Your task to perform on an android device: set the timer Image 0: 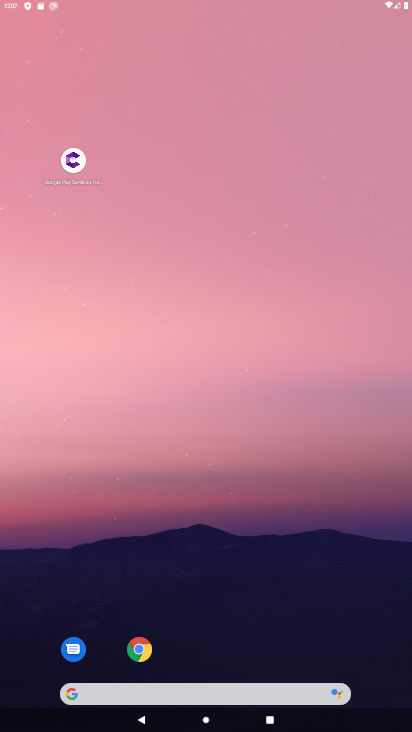
Step 0: drag from (186, 700) to (88, 125)
Your task to perform on an android device: set the timer Image 1: 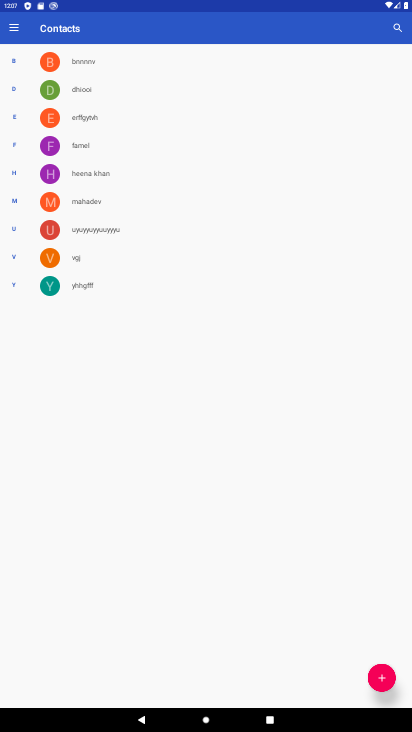
Step 1: press home button
Your task to perform on an android device: set the timer Image 2: 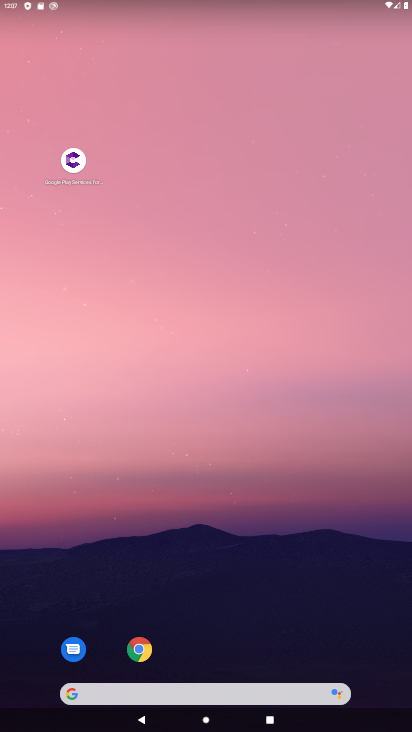
Step 2: drag from (135, 672) to (135, 278)
Your task to perform on an android device: set the timer Image 3: 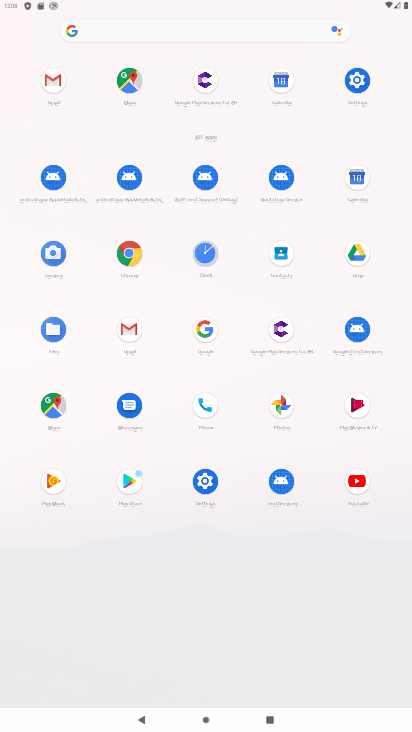
Step 3: click (204, 263)
Your task to perform on an android device: set the timer Image 4: 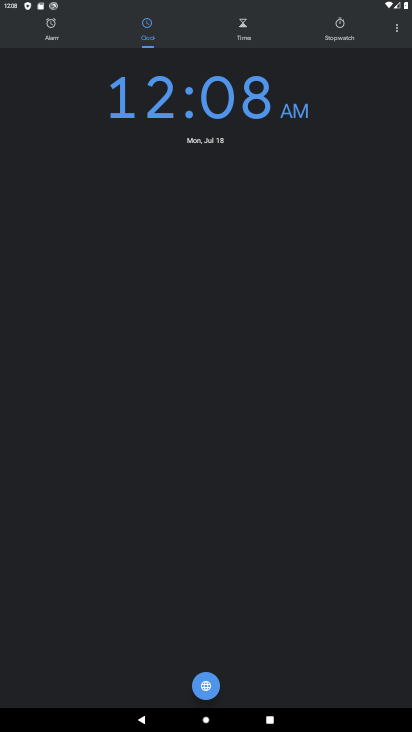
Step 4: click (344, 28)
Your task to perform on an android device: set the timer Image 5: 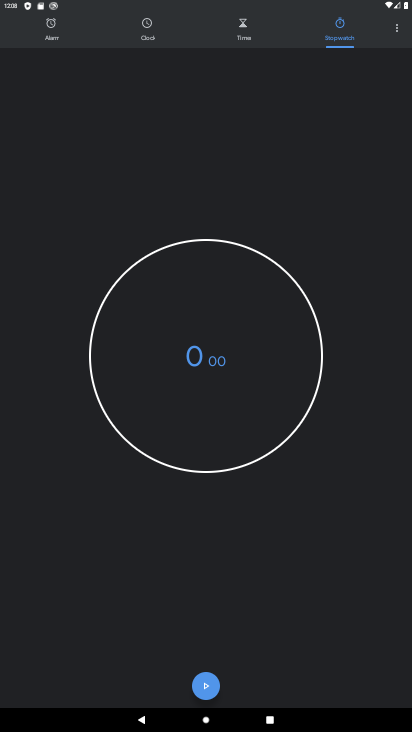
Step 5: click (248, 35)
Your task to perform on an android device: set the timer Image 6: 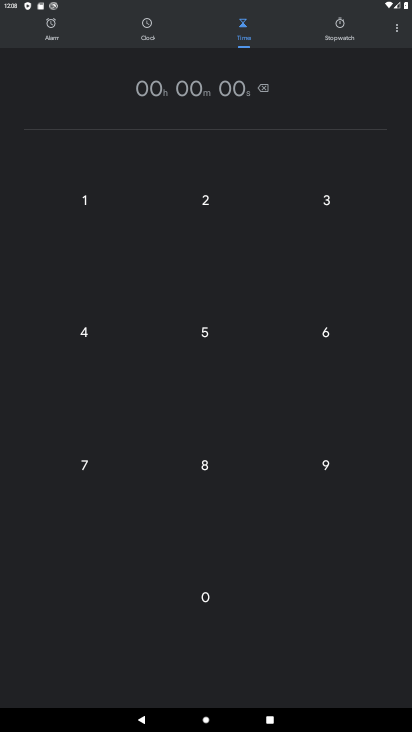
Step 6: click (206, 601)
Your task to perform on an android device: set the timer Image 7: 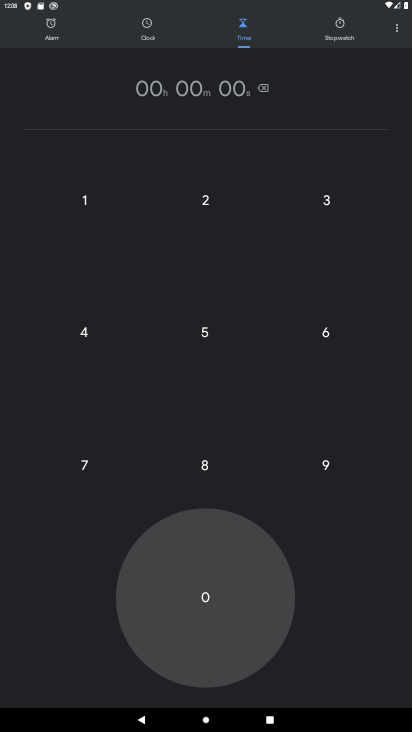
Step 7: click (198, 473)
Your task to perform on an android device: set the timer Image 8: 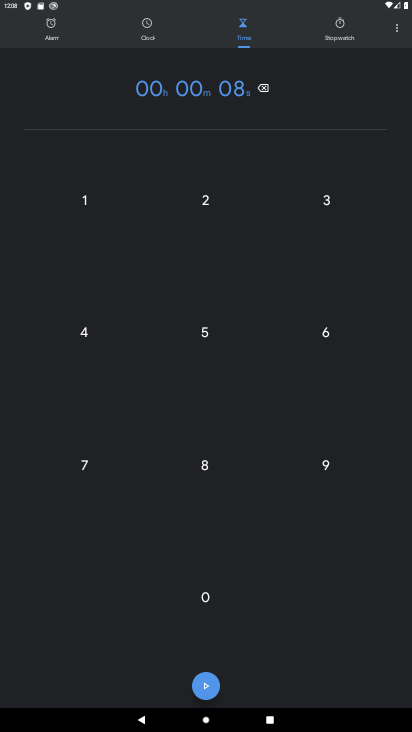
Step 8: click (208, 594)
Your task to perform on an android device: set the timer Image 9: 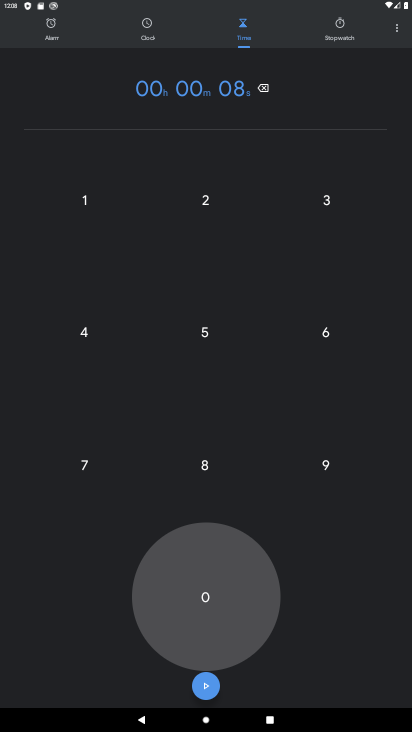
Step 9: click (208, 594)
Your task to perform on an android device: set the timer Image 10: 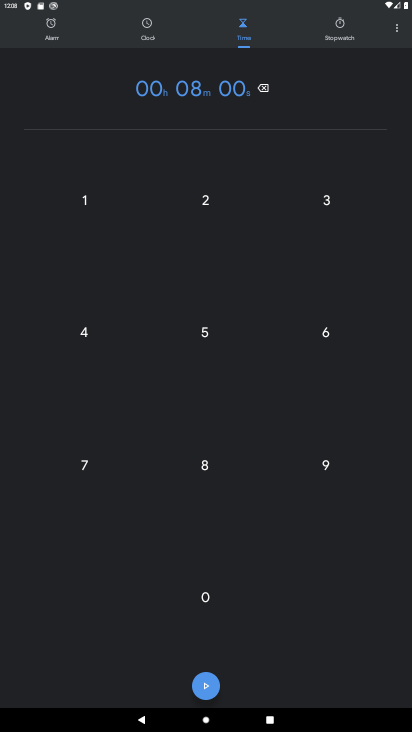
Step 10: click (202, 684)
Your task to perform on an android device: set the timer Image 11: 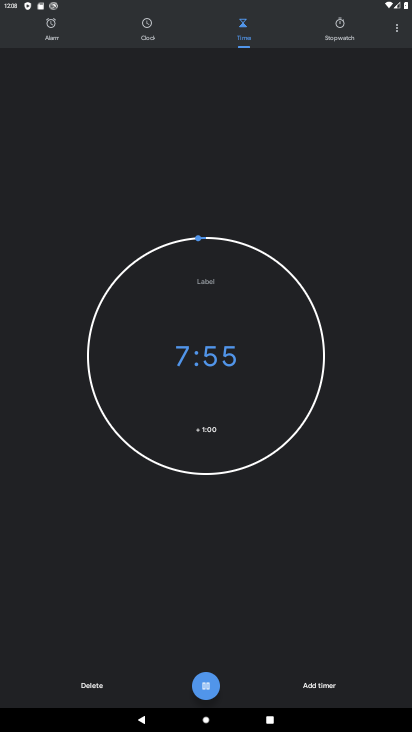
Step 11: task complete